Your task to perform on an android device: make emails show in primary in the gmail app Image 0: 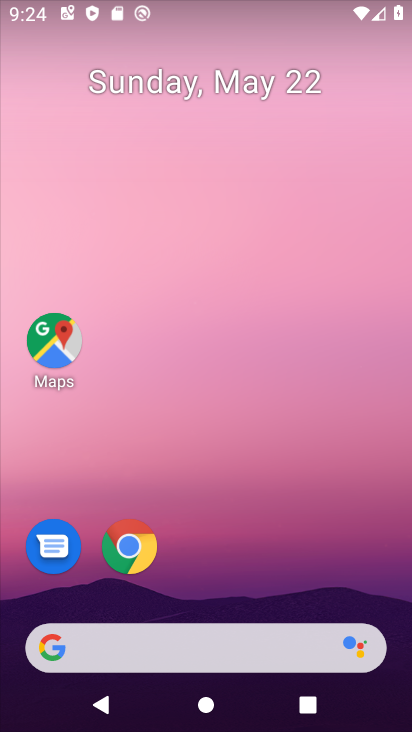
Step 0: drag from (227, 552) to (304, 59)
Your task to perform on an android device: make emails show in primary in the gmail app Image 1: 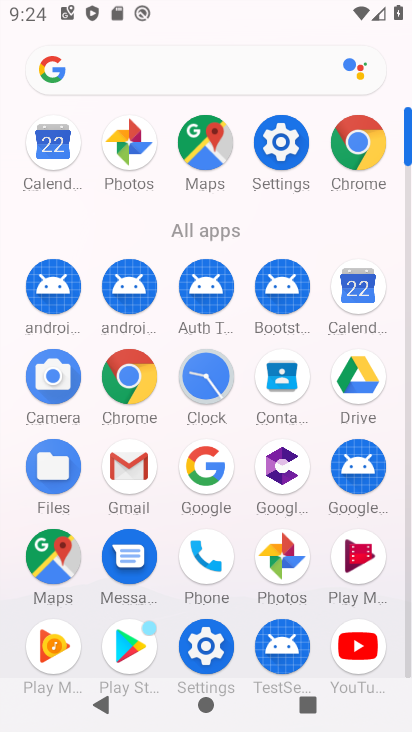
Step 1: click (138, 469)
Your task to perform on an android device: make emails show in primary in the gmail app Image 2: 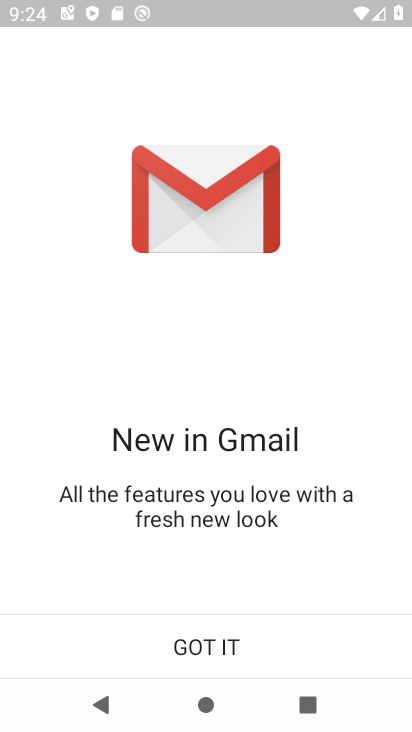
Step 2: click (212, 654)
Your task to perform on an android device: make emails show in primary in the gmail app Image 3: 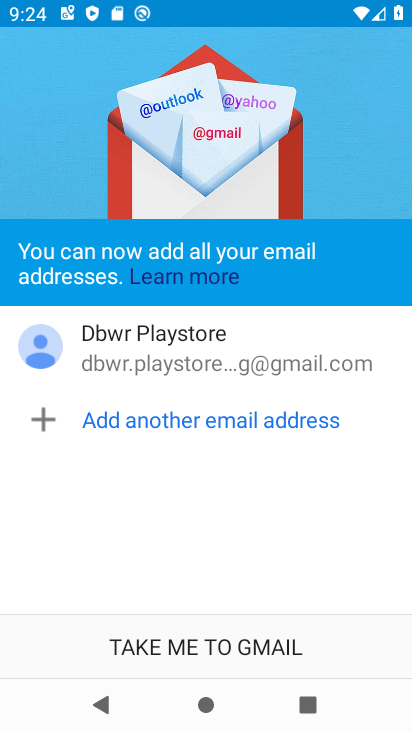
Step 3: click (186, 643)
Your task to perform on an android device: make emails show in primary in the gmail app Image 4: 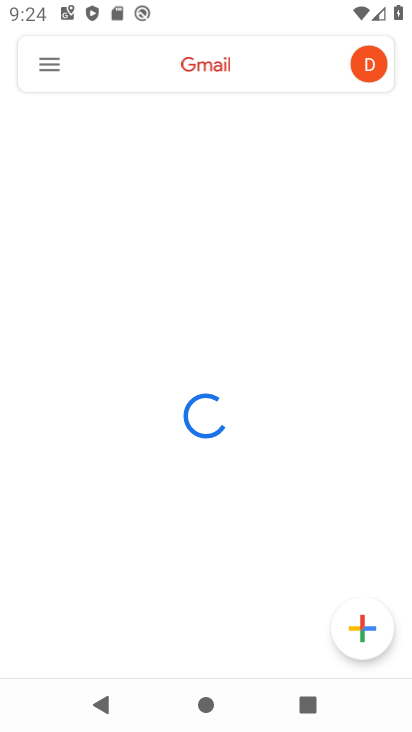
Step 4: click (52, 65)
Your task to perform on an android device: make emails show in primary in the gmail app Image 5: 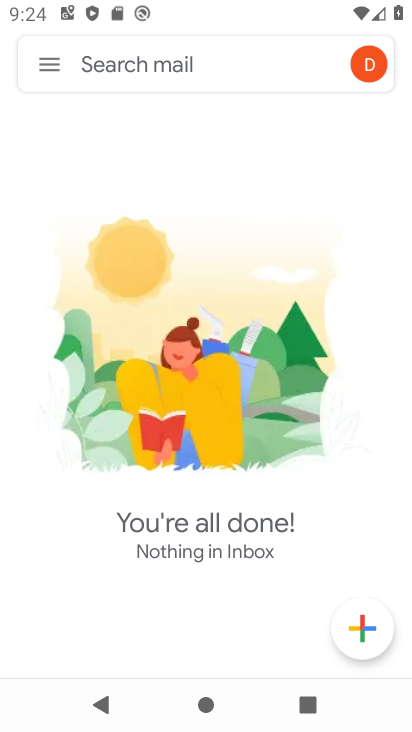
Step 5: click (50, 66)
Your task to perform on an android device: make emails show in primary in the gmail app Image 6: 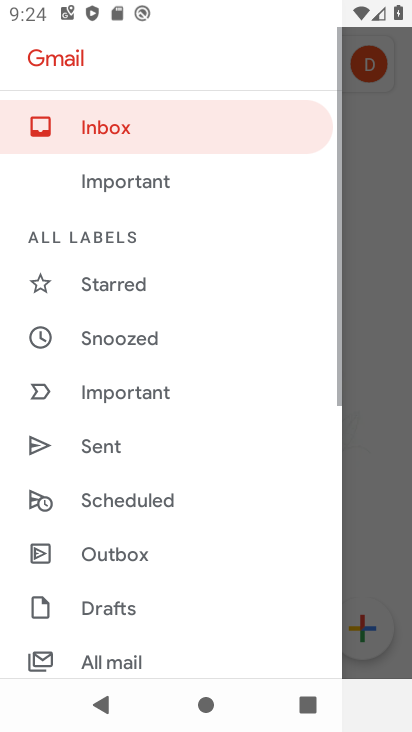
Step 6: drag from (116, 592) to (231, 54)
Your task to perform on an android device: make emails show in primary in the gmail app Image 7: 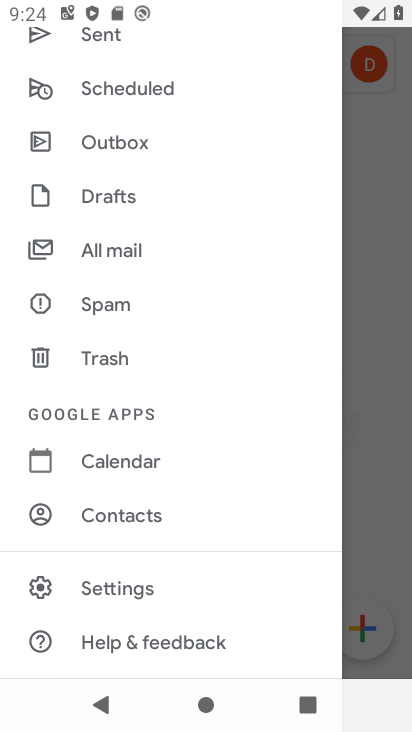
Step 7: click (140, 592)
Your task to perform on an android device: make emails show in primary in the gmail app Image 8: 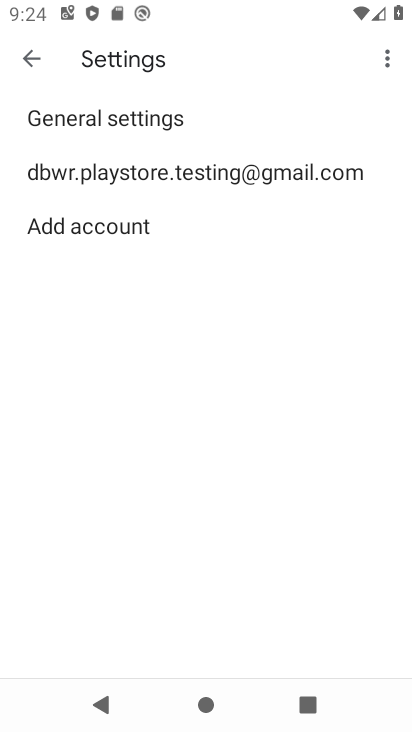
Step 8: click (159, 183)
Your task to perform on an android device: make emails show in primary in the gmail app Image 9: 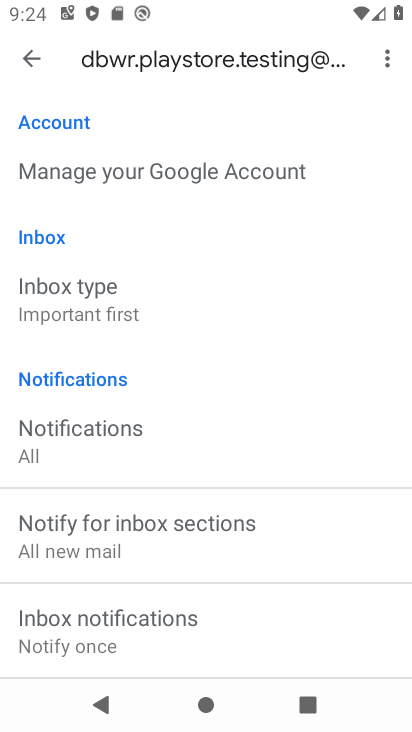
Step 9: task complete